Your task to perform on an android device: visit the assistant section in the google photos Image 0: 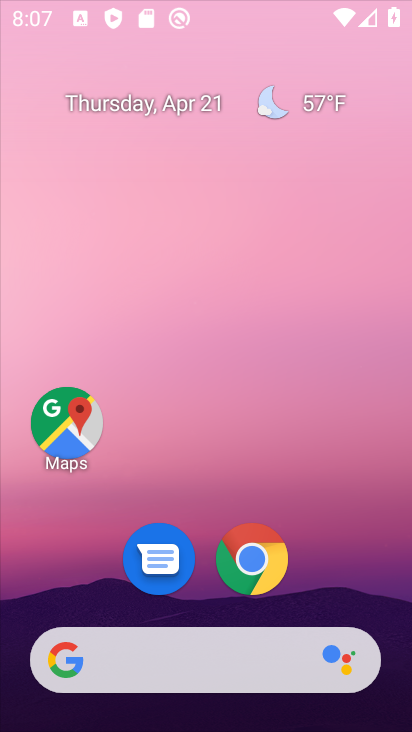
Step 0: click (45, 431)
Your task to perform on an android device: visit the assistant section in the google photos Image 1: 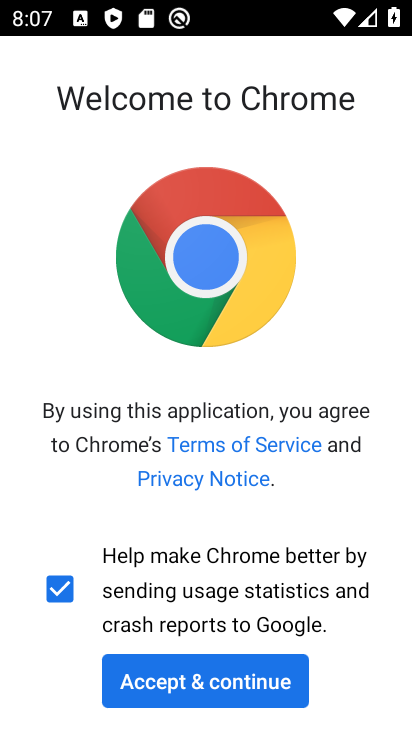
Step 1: press home button
Your task to perform on an android device: visit the assistant section in the google photos Image 2: 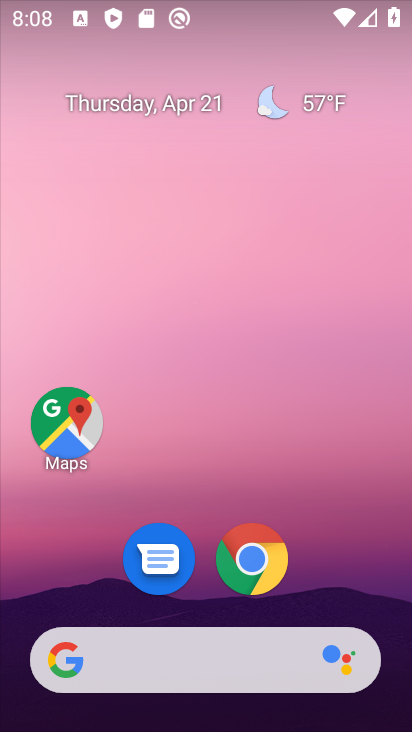
Step 2: drag from (250, 702) to (331, 2)
Your task to perform on an android device: visit the assistant section in the google photos Image 3: 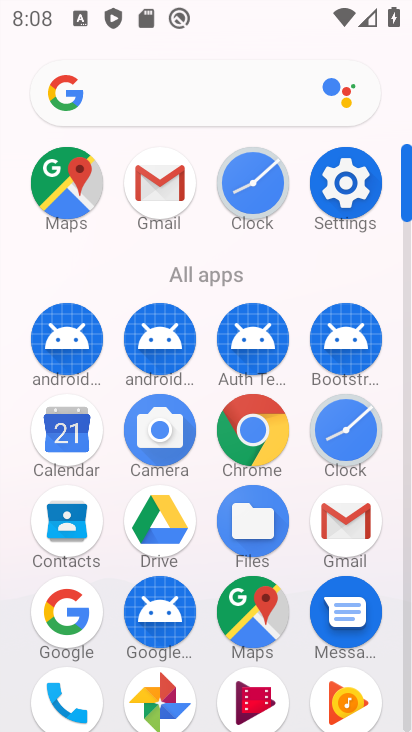
Step 3: drag from (148, 434) to (132, 25)
Your task to perform on an android device: visit the assistant section in the google photos Image 4: 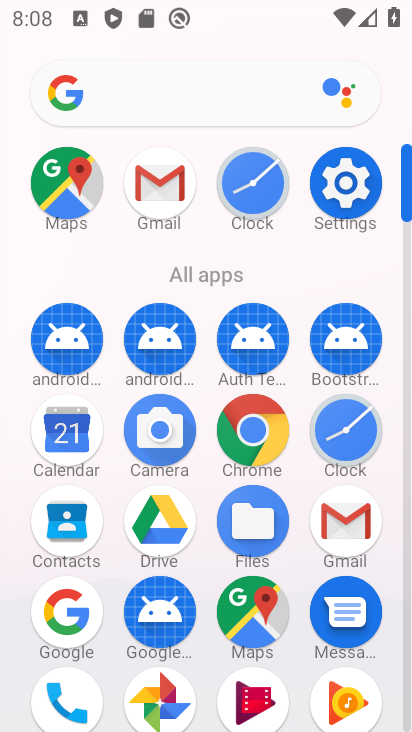
Step 4: click (147, 697)
Your task to perform on an android device: visit the assistant section in the google photos Image 5: 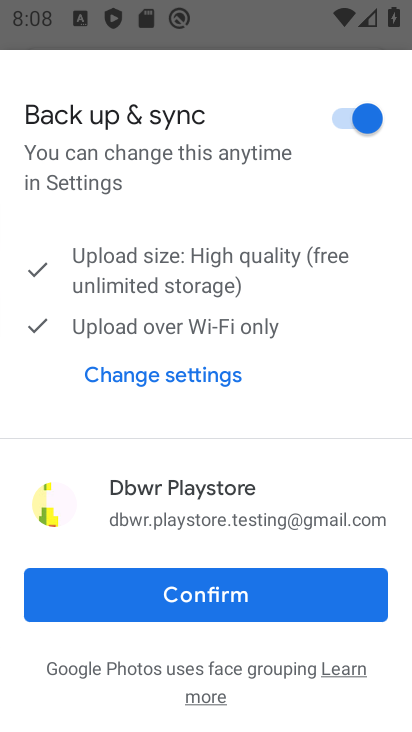
Step 5: click (214, 602)
Your task to perform on an android device: visit the assistant section in the google photos Image 6: 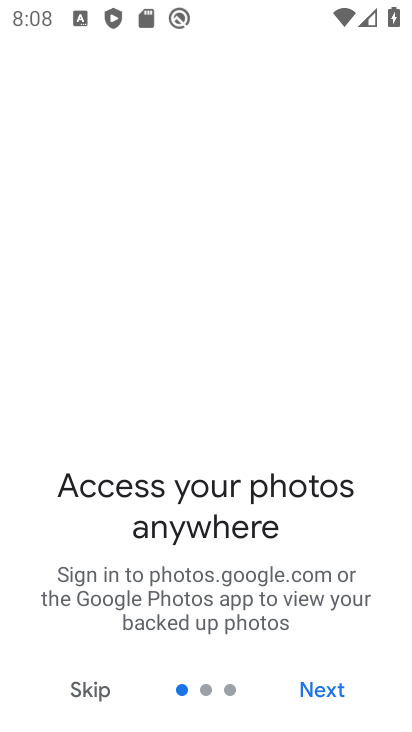
Step 6: click (267, 700)
Your task to perform on an android device: visit the assistant section in the google photos Image 7: 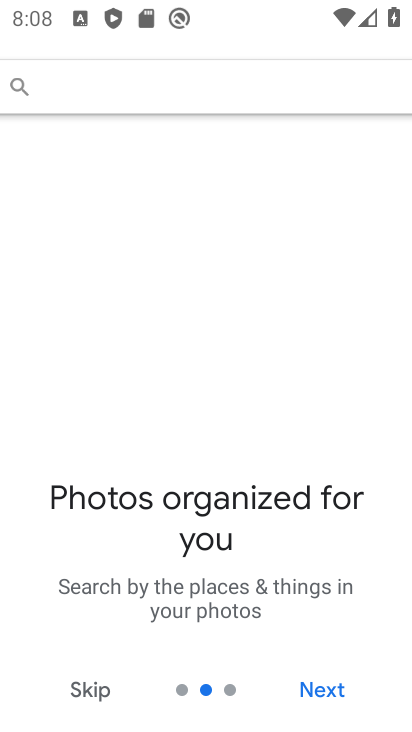
Step 7: click (303, 683)
Your task to perform on an android device: visit the assistant section in the google photos Image 8: 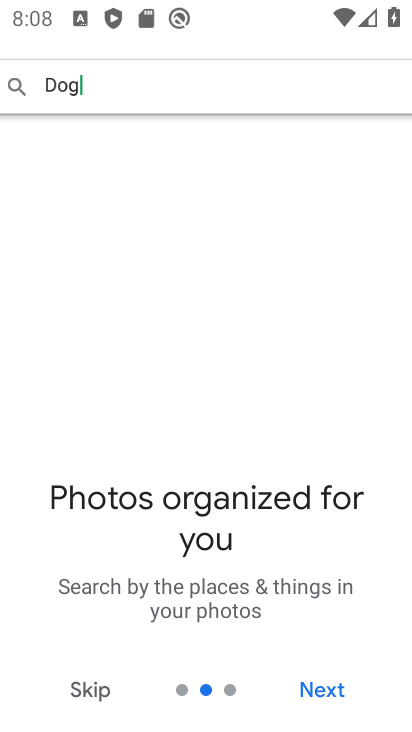
Step 8: click (303, 683)
Your task to perform on an android device: visit the assistant section in the google photos Image 9: 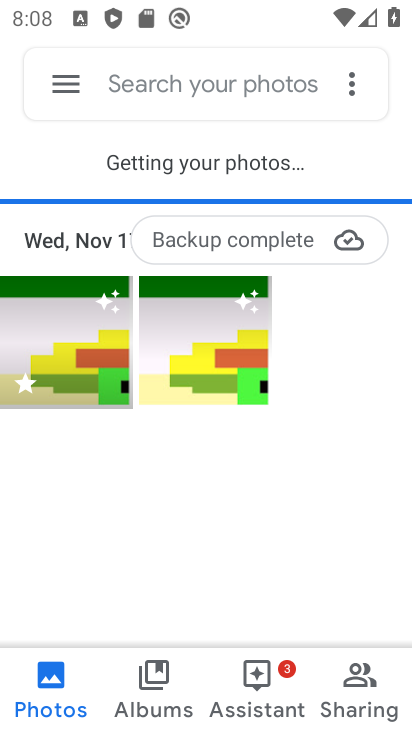
Step 9: click (311, 691)
Your task to perform on an android device: visit the assistant section in the google photos Image 10: 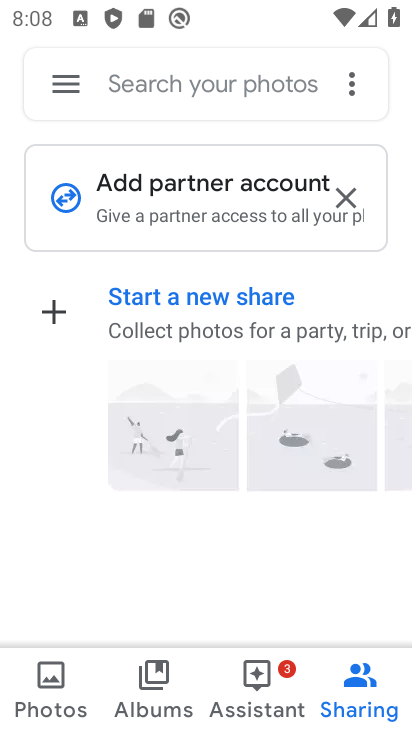
Step 10: click (245, 692)
Your task to perform on an android device: visit the assistant section in the google photos Image 11: 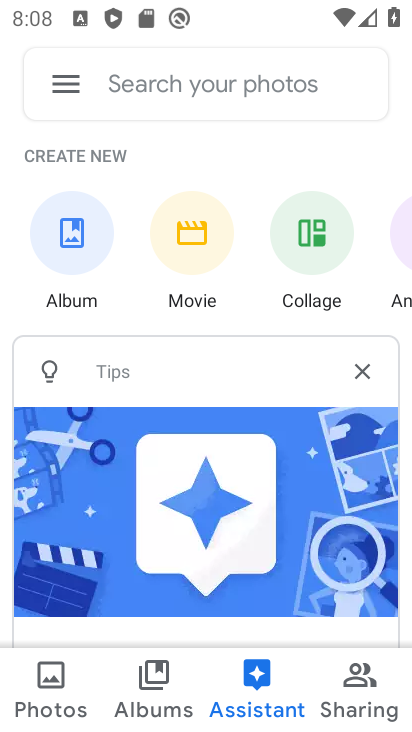
Step 11: task complete